Your task to perform on an android device: turn off improve location accuracy Image 0: 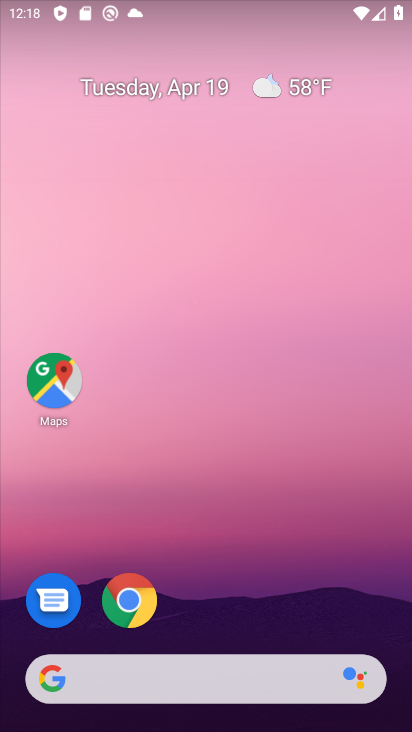
Step 0: drag from (256, 708) to (285, 252)
Your task to perform on an android device: turn off improve location accuracy Image 1: 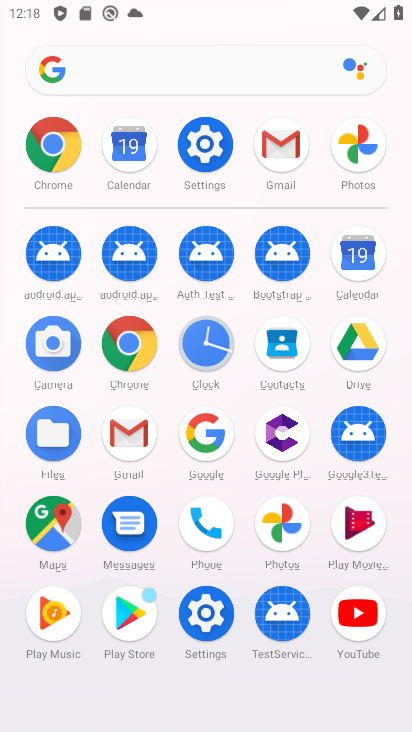
Step 1: click (196, 615)
Your task to perform on an android device: turn off improve location accuracy Image 2: 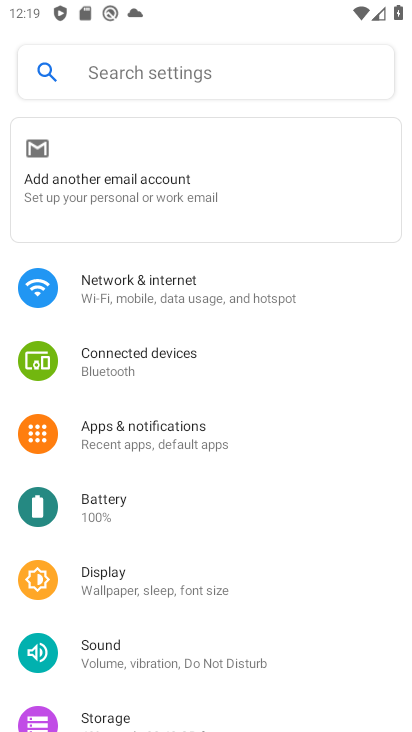
Step 2: click (169, 78)
Your task to perform on an android device: turn off improve location accuracy Image 3: 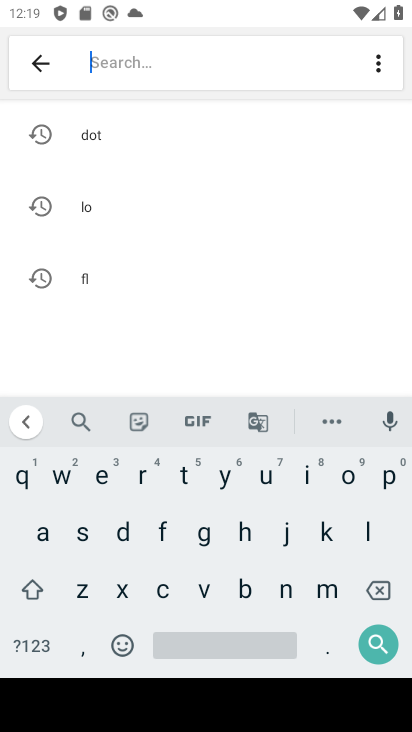
Step 3: click (85, 204)
Your task to perform on an android device: turn off improve location accuracy Image 4: 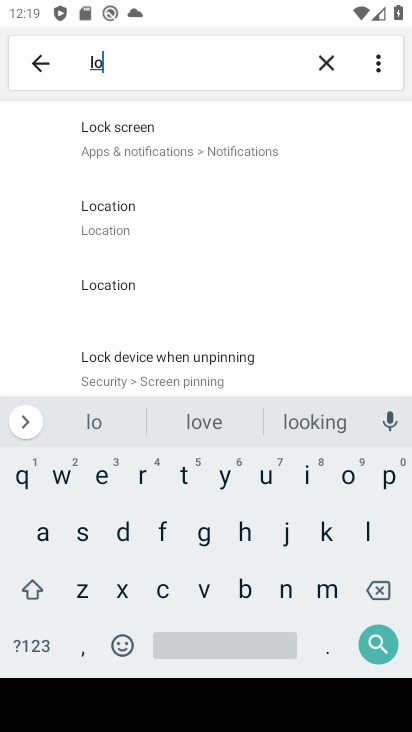
Step 4: click (148, 233)
Your task to perform on an android device: turn off improve location accuracy Image 5: 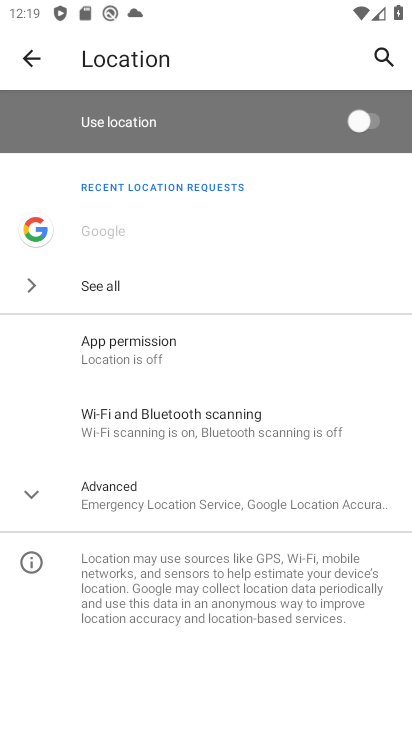
Step 5: click (79, 495)
Your task to perform on an android device: turn off improve location accuracy Image 6: 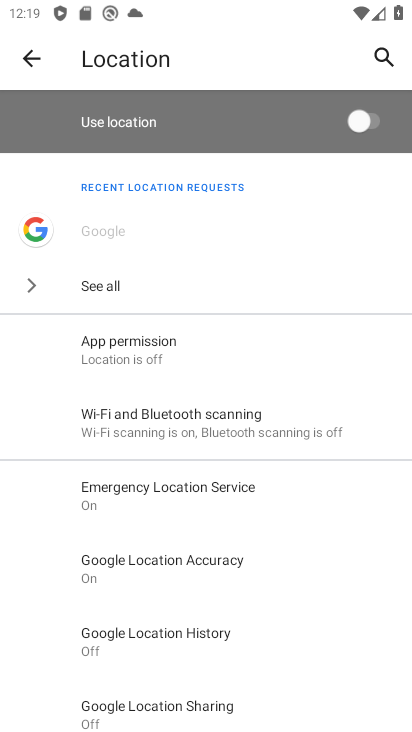
Step 6: click (180, 568)
Your task to perform on an android device: turn off improve location accuracy Image 7: 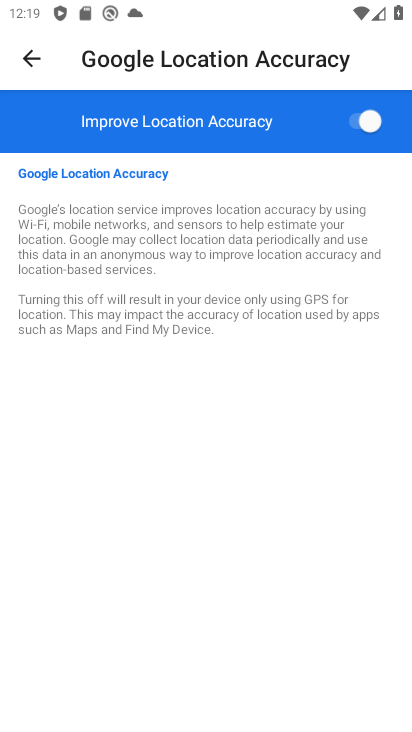
Step 7: click (370, 121)
Your task to perform on an android device: turn off improve location accuracy Image 8: 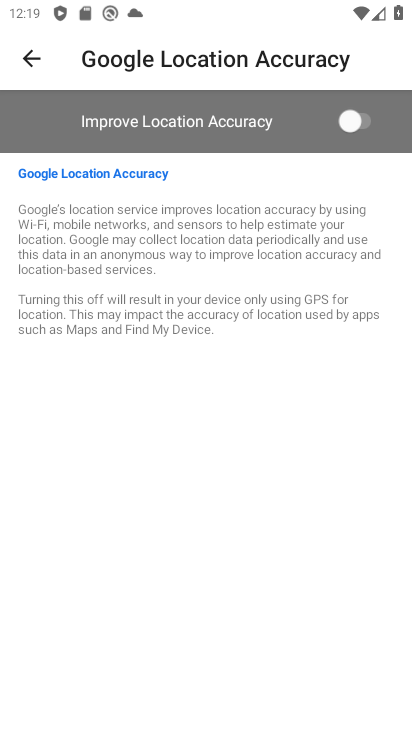
Step 8: task complete